Your task to perform on an android device: Go to battery settings Image 0: 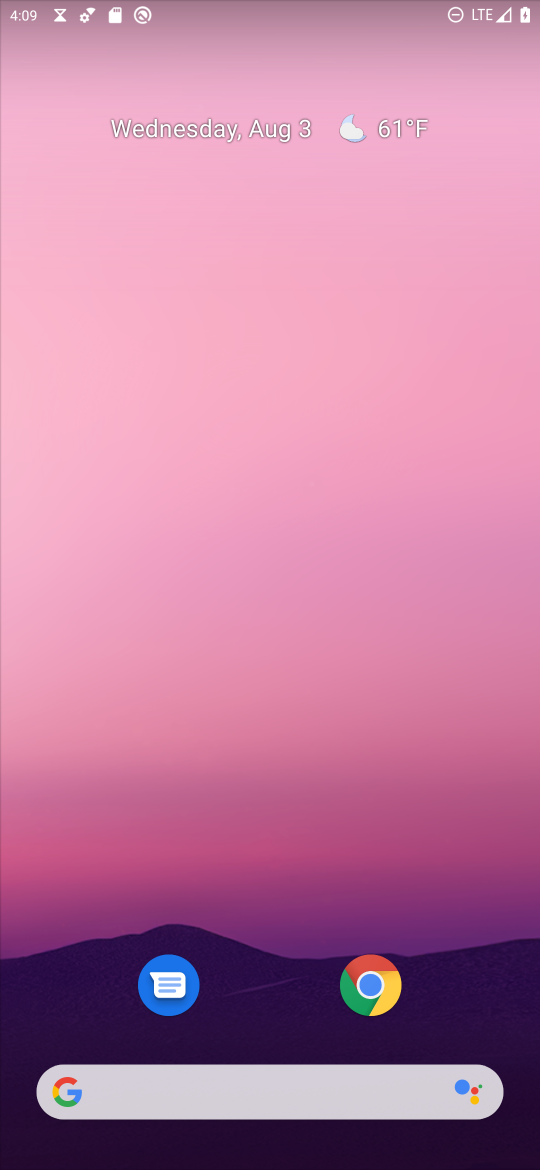
Step 0: drag from (248, 958) to (248, 97)
Your task to perform on an android device: Go to battery settings Image 1: 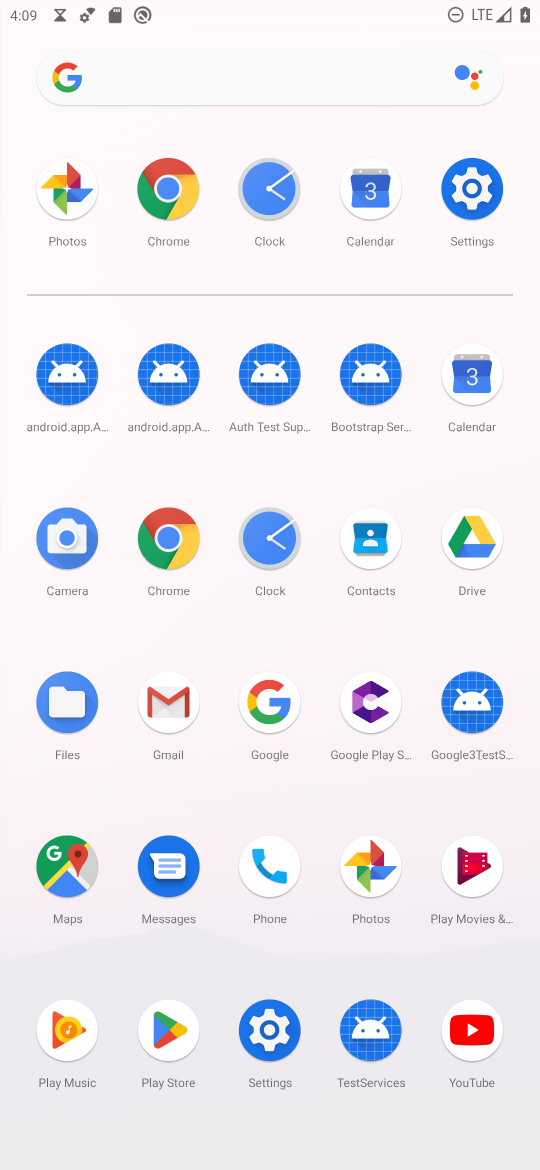
Step 1: click (474, 166)
Your task to perform on an android device: Go to battery settings Image 2: 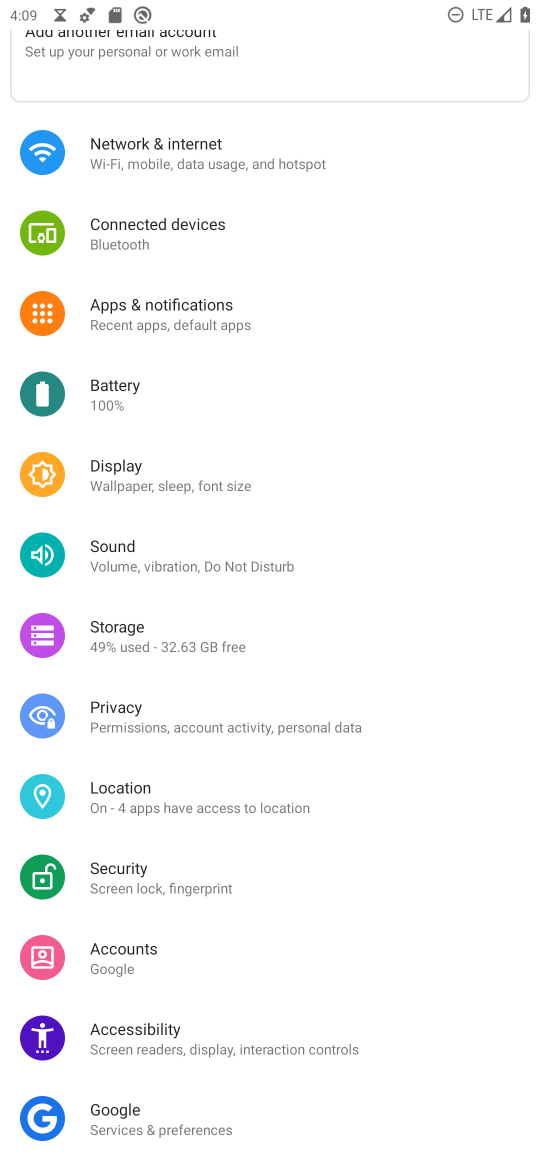
Step 2: click (131, 388)
Your task to perform on an android device: Go to battery settings Image 3: 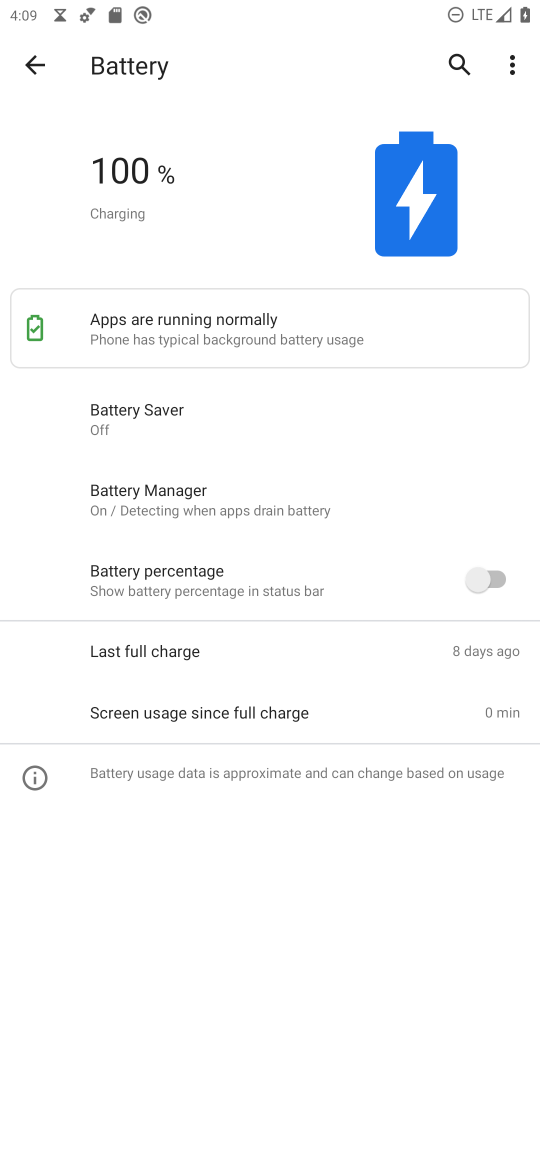
Step 3: task complete